Your task to perform on an android device: Open calendar and show me the second week of next month Image 0: 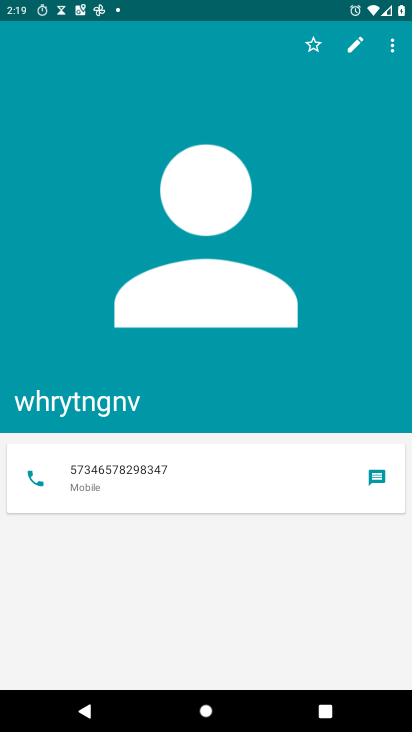
Step 0: press home button
Your task to perform on an android device: Open calendar and show me the second week of next month Image 1: 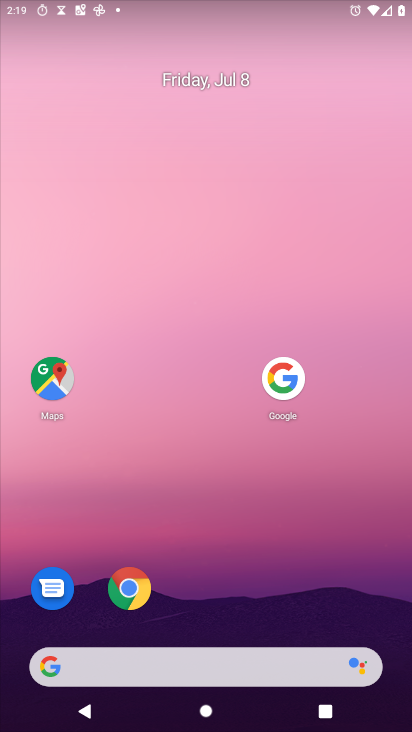
Step 1: drag from (132, 659) to (247, 86)
Your task to perform on an android device: Open calendar and show me the second week of next month Image 2: 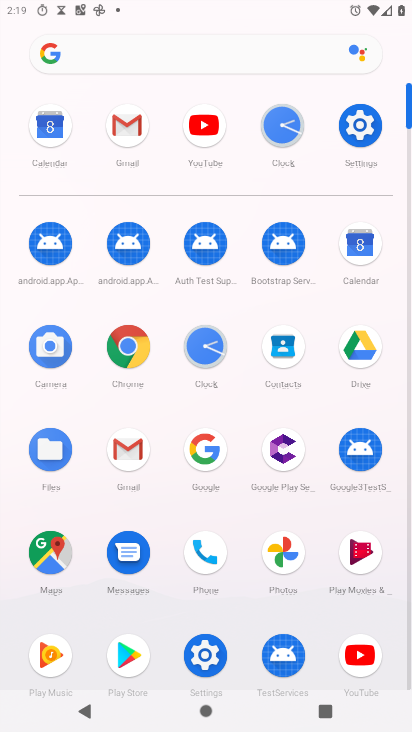
Step 2: click (361, 245)
Your task to perform on an android device: Open calendar and show me the second week of next month Image 3: 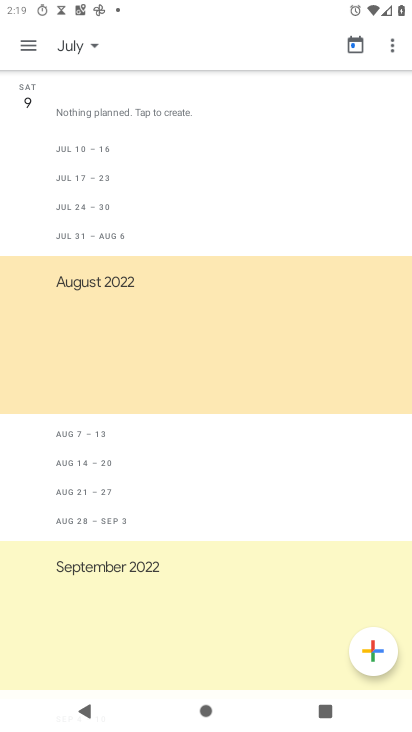
Step 3: click (74, 39)
Your task to perform on an android device: Open calendar and show me the second week of next month Image 4: 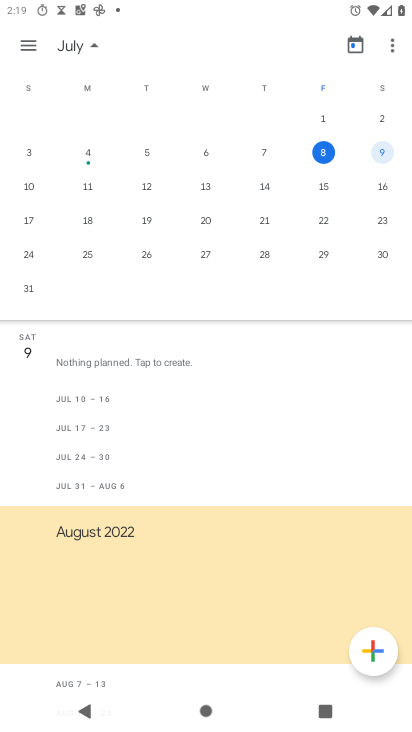
Step 4: drag from (341, 216) to (3, 230)
Your task to perform on an android device: Open calendar and show me the second week of next month Image 5: 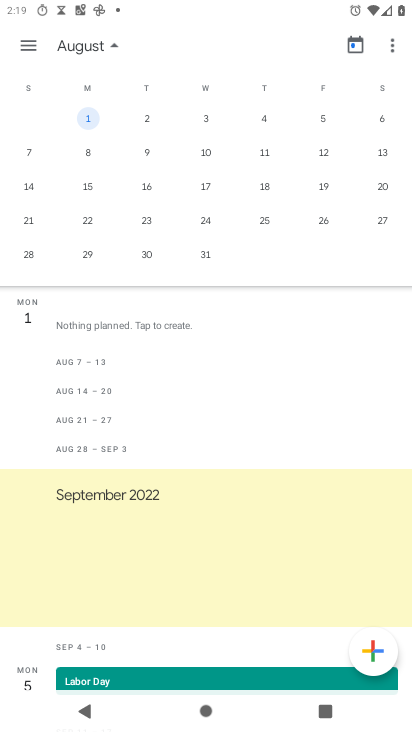
Step 5: click (26, 150)
Your task to perform on an android device: Open calendar and show me the second week of next month Image 6: 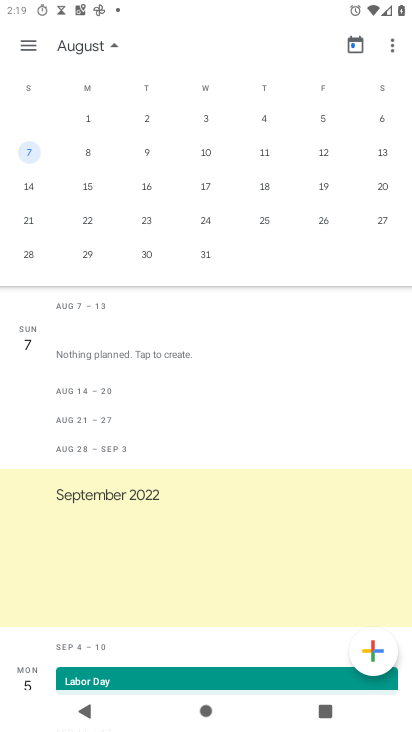
Step 6: click (29, 37)
Your task to perform on an android device: Open calendar and show me the second week of next month Image 7: 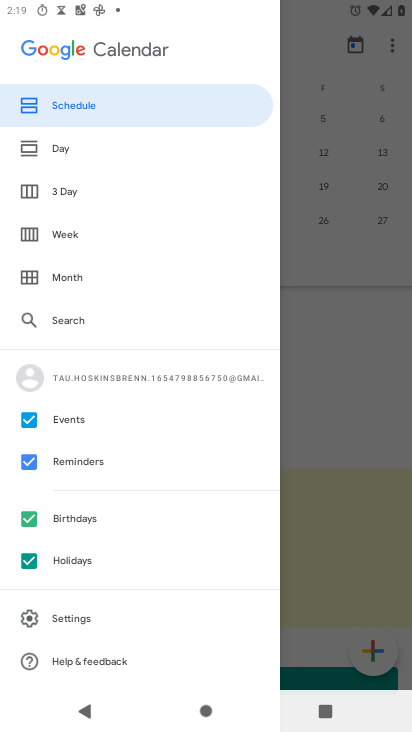
Step 7: click (55, 232)
Your task to perform on an android device: Open calendar and show me the second week of next month Image 8: 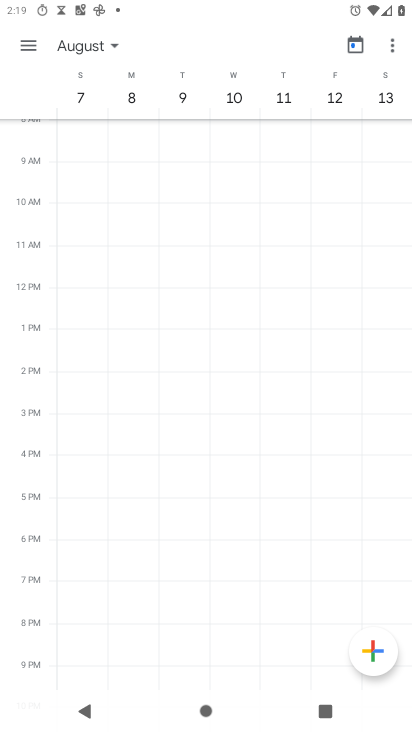
Step 8: task complete